Your task to perform on an android device: Go to sound settings Image 0: 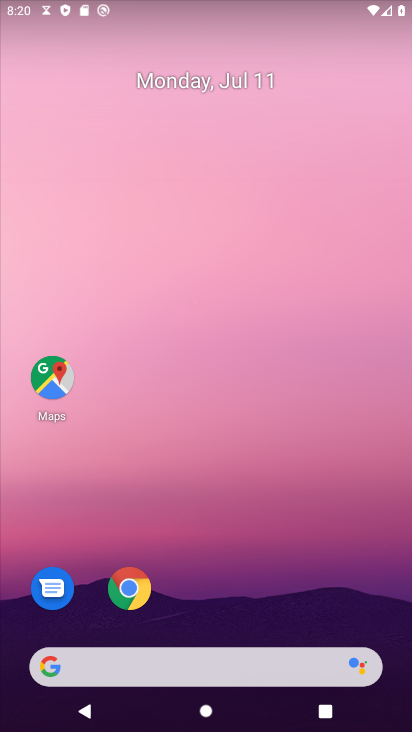
Step 0: press home button
Your task to perform on an android device: Go to sound settings Image 1: 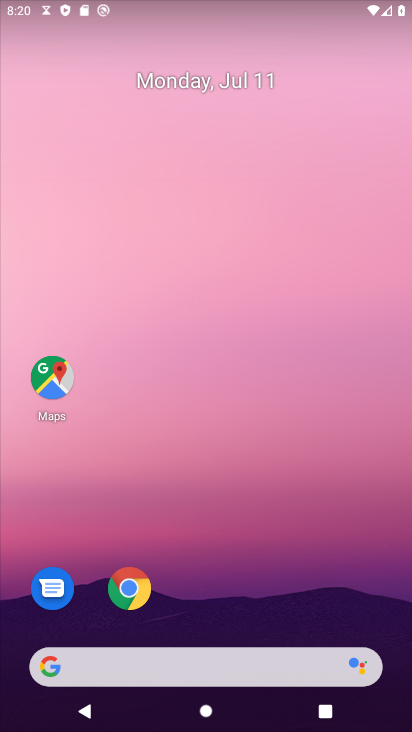
Step 1: drag from (251, 532) to (404, 204)
Your task to perform on an android device: Go to sound settings Image 2: 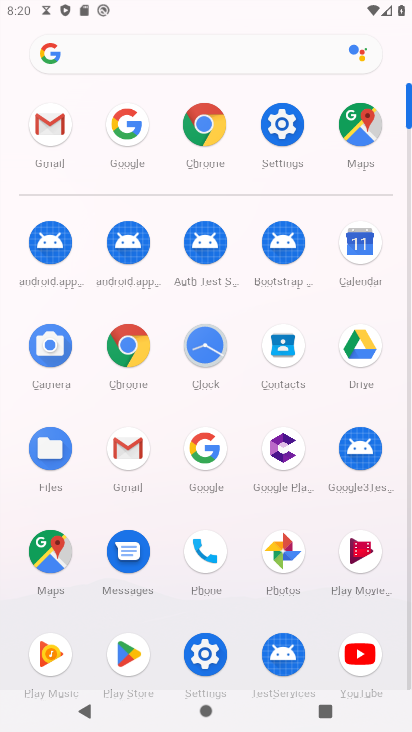
Step 2: click (286, 123)
Your task to perform on an android device: Go to sound settings Image 3: 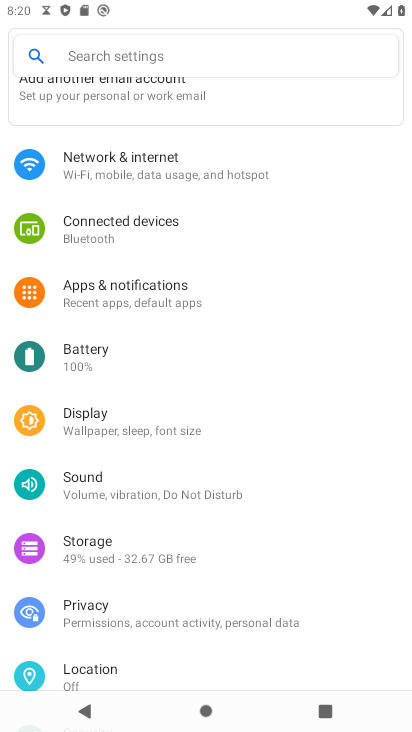
Step 3: click (118, 473)
Your task to perform on an android device: Go to sound settings Image 4: 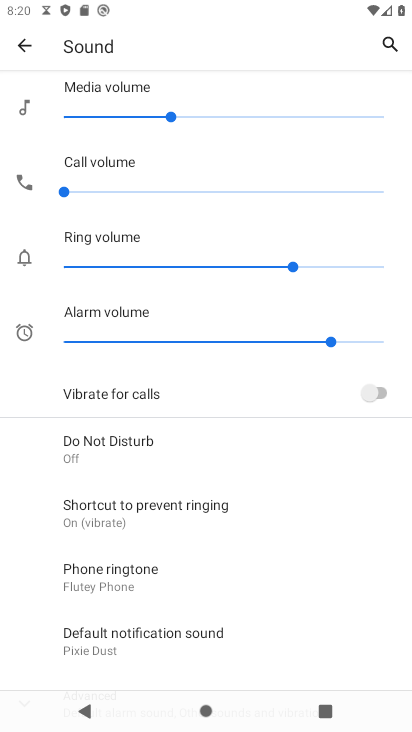
Step 4: task complete